Your task to perform on an android device: see sites visited before in the chrome app Image 0: 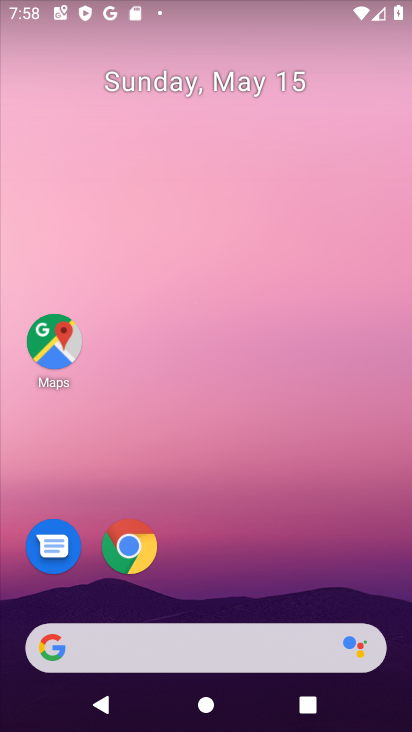
Step 0: click (133, 536)
Your task to perform on an android device: see sites visited before in the chrome app Image 1: 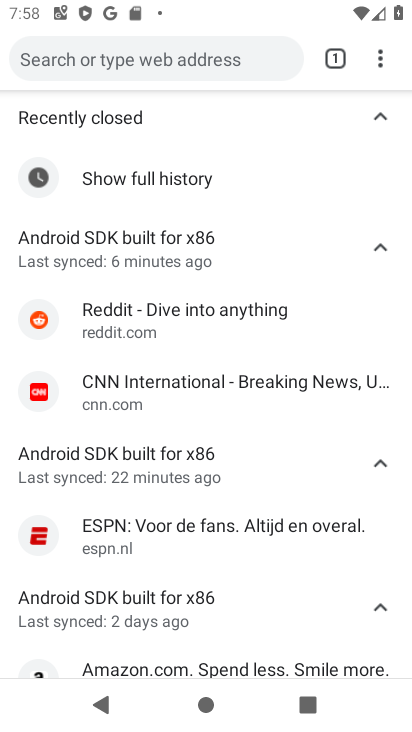
Step 1: click (377, 54)
Your task to perform on an android device: see sites visited before in the chrome app Image 2: 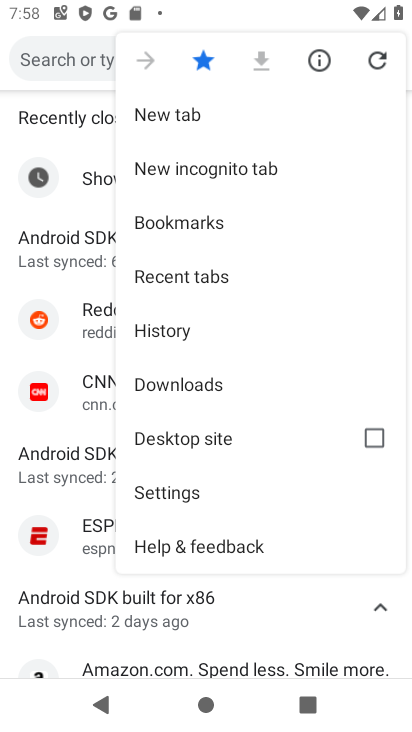
Step 2: click (195, 277)
Your task to perform on an android device: see sites visited before in the chrome app Image 3: 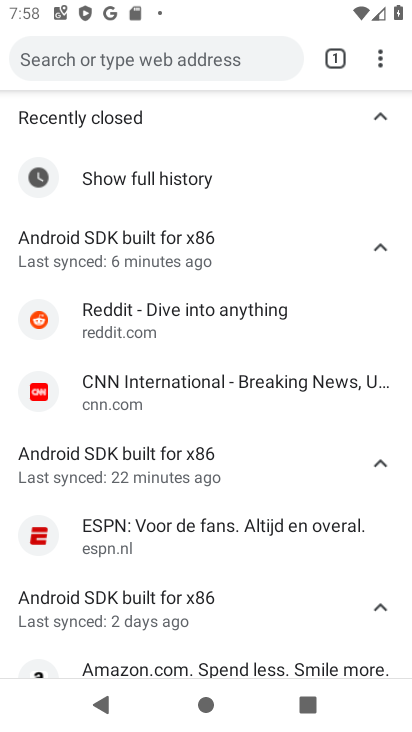
Step 3: task complete